Your task to perform on an android device: add a contact Image 0: 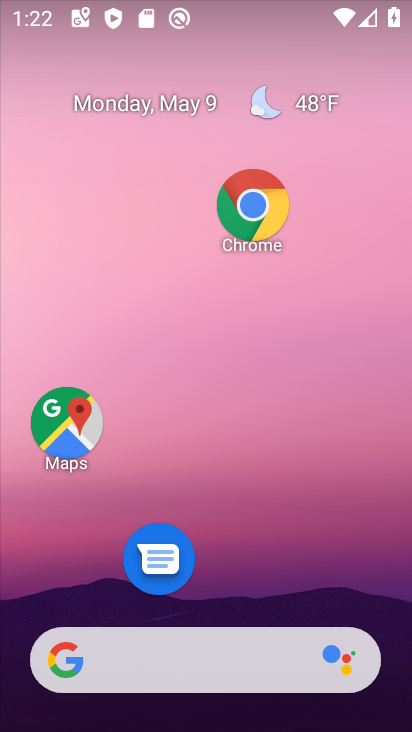
Step 0: drag from (277, 585) to (293, 268)
Your task to perform on an android device: add a contact Image 1: 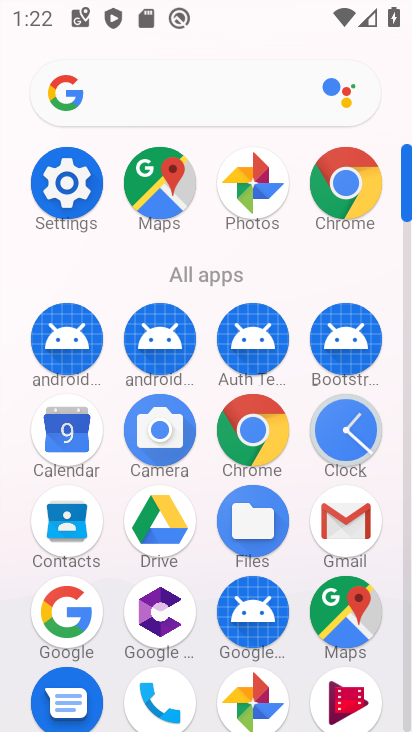
Step 1: drag from (278, 611) to (301, 272)
Your task to perform on an android device: add a contact Image 2: 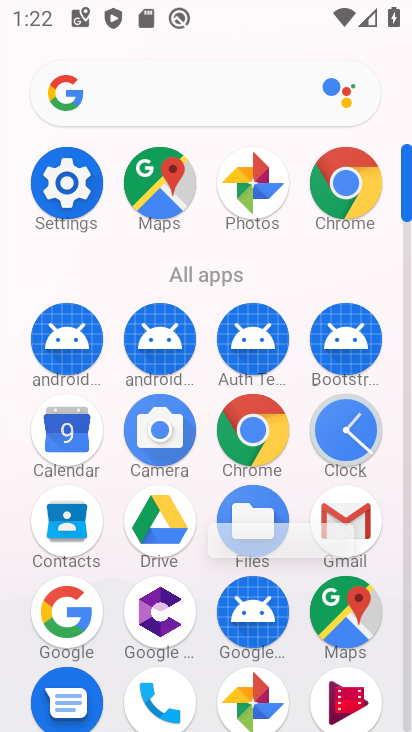
Step 2: drag from (317, 620) to (308, 191)
Your task to perform on an android device: add a contact Image 3: 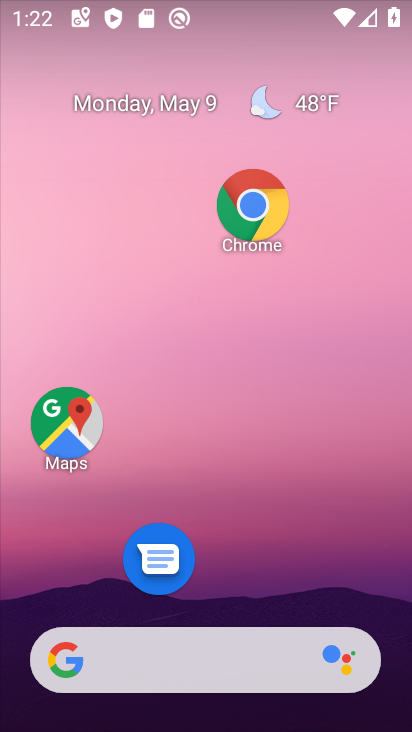
Step 3: drag from (274, 574) to (311, 320)
Your task to perform on an android device: add a contact Image 4: 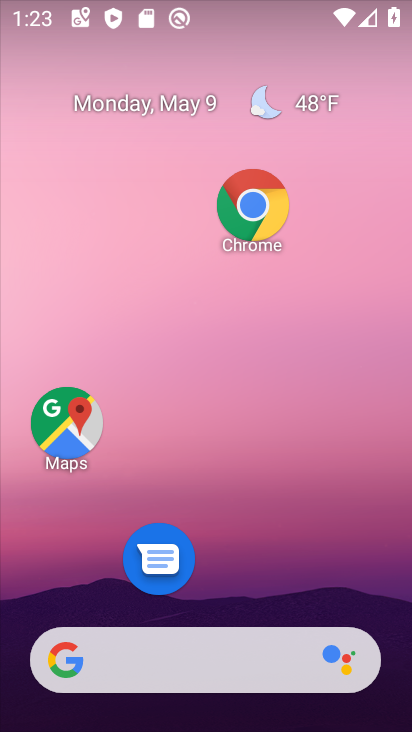
Step 4: drag from (226, 535) to (268, 350)
Your task to perform on an android device: add a contact Image 5: 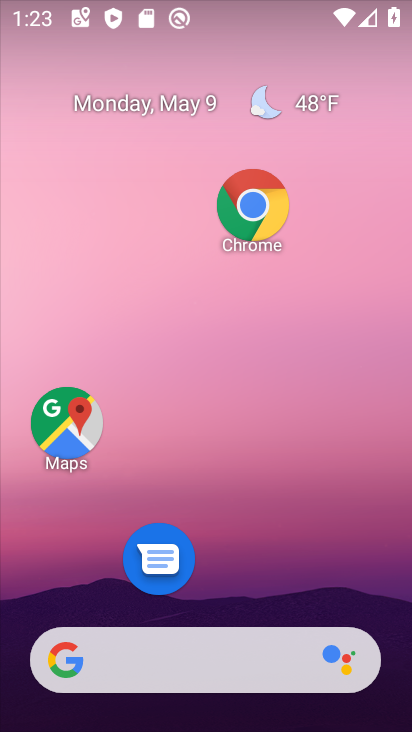
Step 5: drag from (270, 553) to (323, 179)
Your task to perform on an android device: add a contact Image 6: 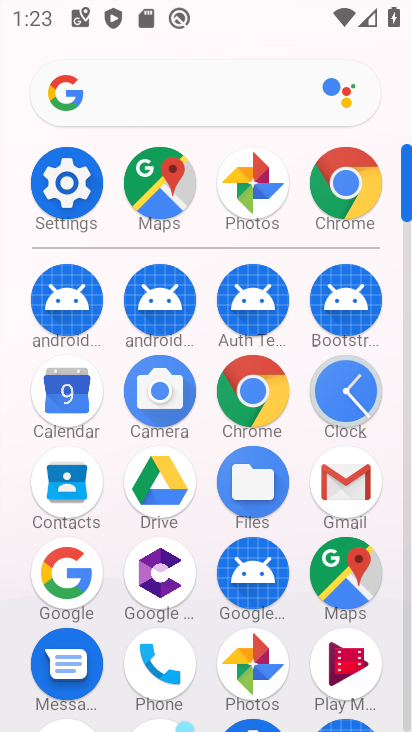
Step 6: click (145, 653)
Your task to perform on an android device: add a contact Image 7: 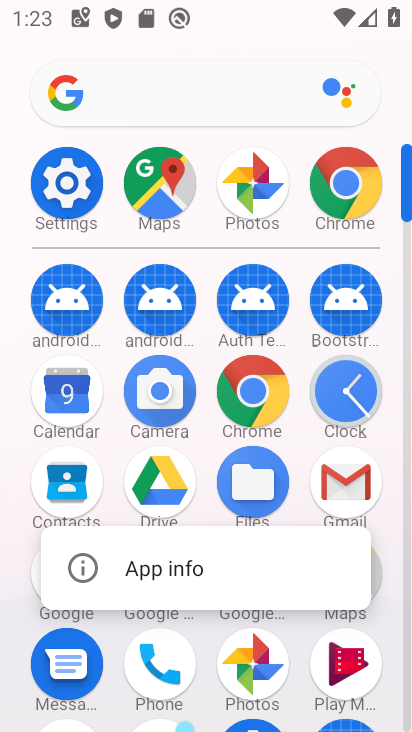
Step 7: click (168, 662)
Your task to perform on an android device: add a contact Image 8: 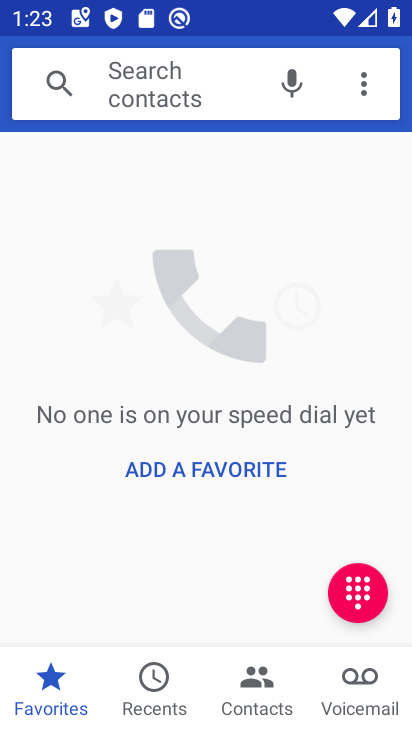
Step 8: click (168, 463)
Your task to perform on an android device: add a contact Image 9: 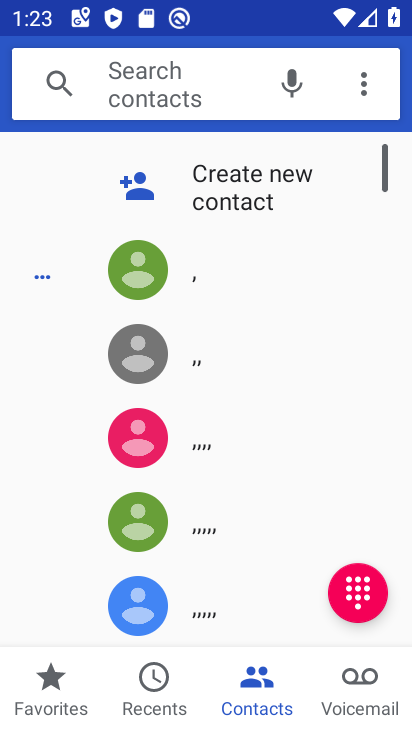
Step 9: click (239, 183)
Your task to perform on an android device: add a contact Image 10: 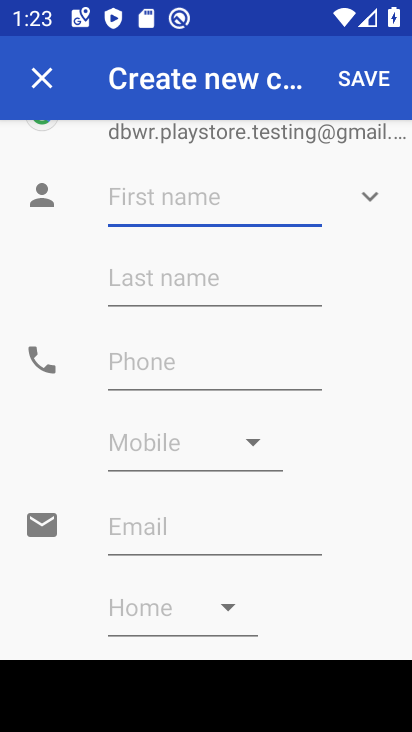
Step 10: click (223, 194)
Your task to perform on an android device: add a contact Image 11: 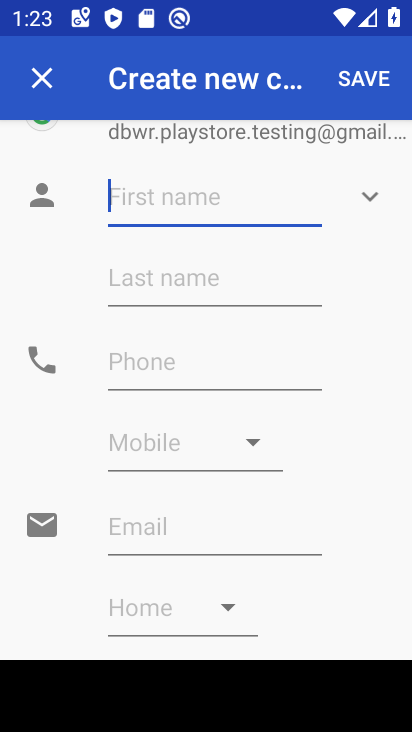
Step 11: type "hhhhhhhhhhhh"
Your task to perform on an android device: add a contact Image 12: 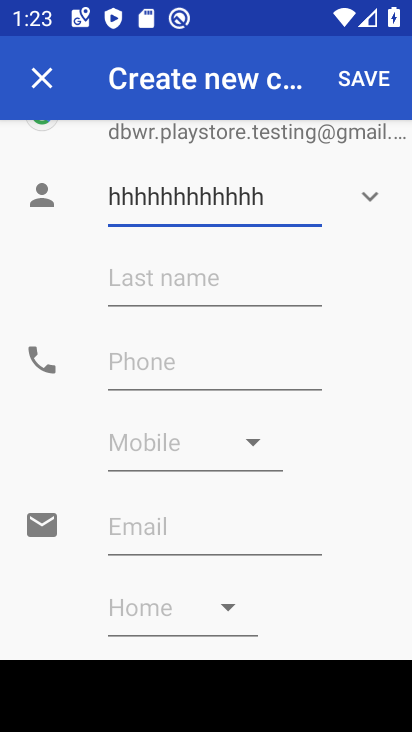
Step 12: click (192, 361)
Your task to perform on an android device: add a contact Image 13: 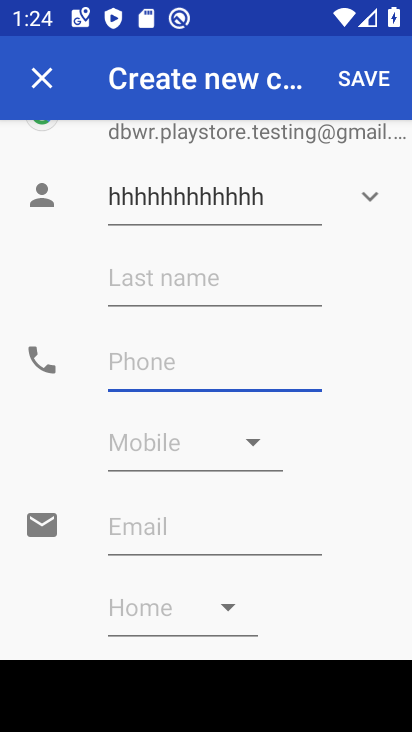
Step 13: type "989898989898"
Your task to perform on an android device: add a contact Image 14: 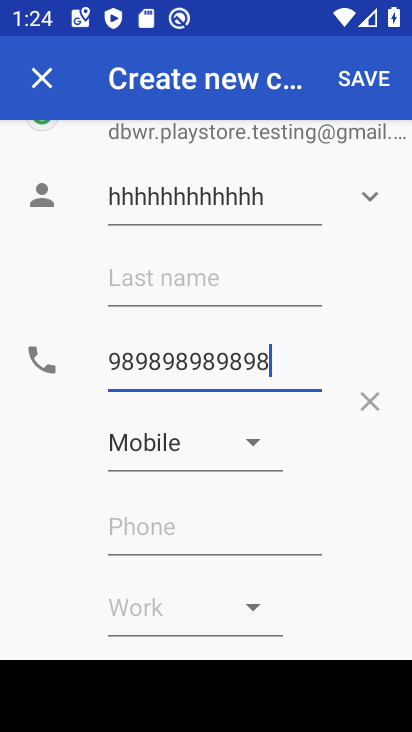
Step 14: click (375, 62)
Your task to perform on an android device: add a contact Image 15: 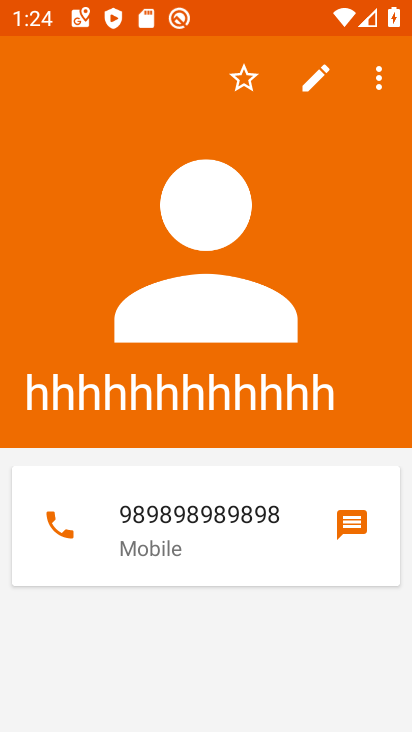
Step 15: task complete